Your task to perform on an android device: Set the phone to "Do not disturb". Image 0: 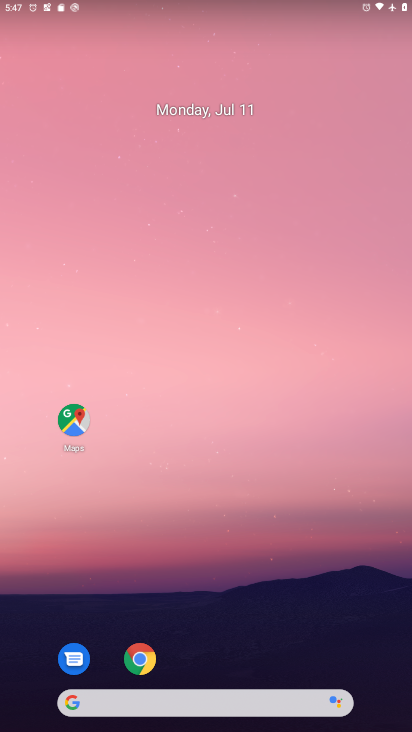
Step 0: drag from (273, 659) to (295, 69)
Your task to perform on an android device: Set the phone to "Do not disturb". Image 1: 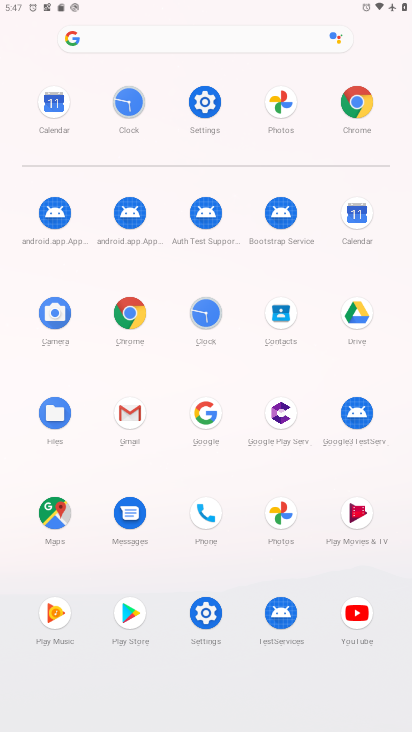
Step 1: click (205, 614)
Your task to perform on an android device: Set the phone to "Do not disturb". Image 2: 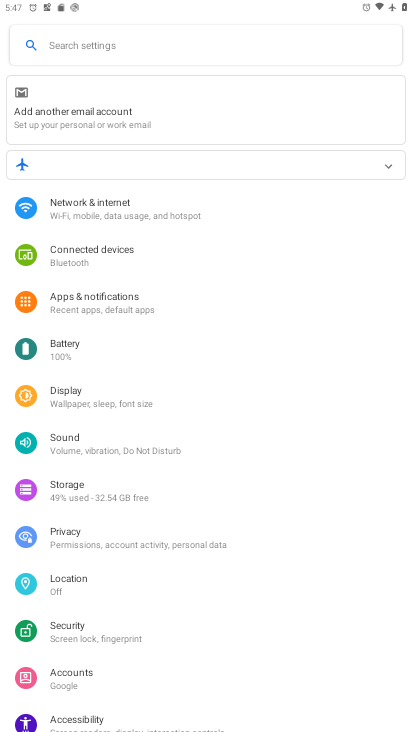
Step 2: click (89, 451)
Your task to perform on an android device: Set the phone to "Do not disturb". Image 3: 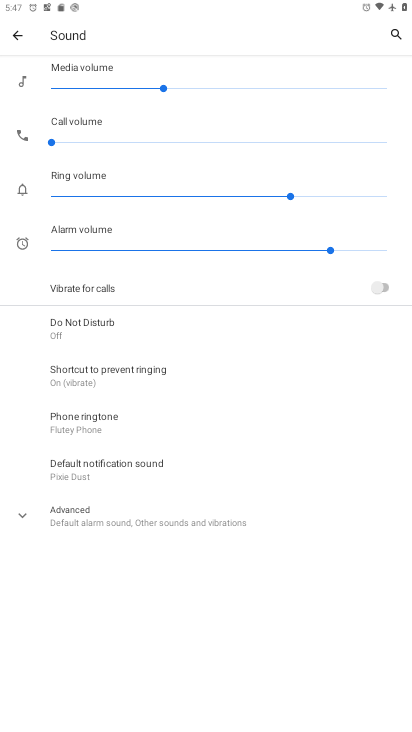
Step 3: click (60, 504)
Your task to perform on an android device: Set the phone to "Do not disturb". Image 4: 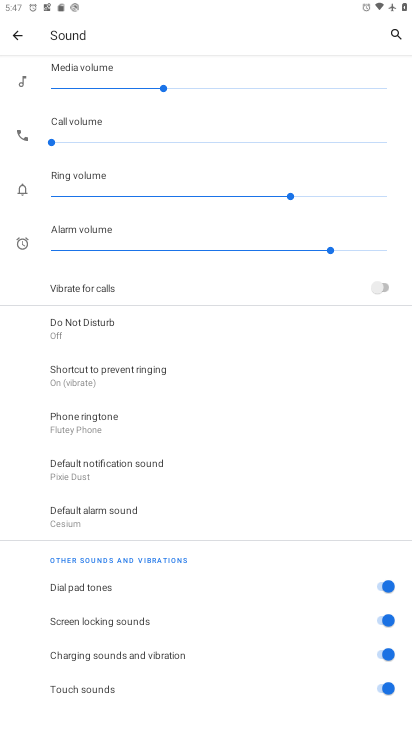
Step 4: click (62, 329)
Your task to perform on an android device: Set the phone to "Do not disturb". Image 5: 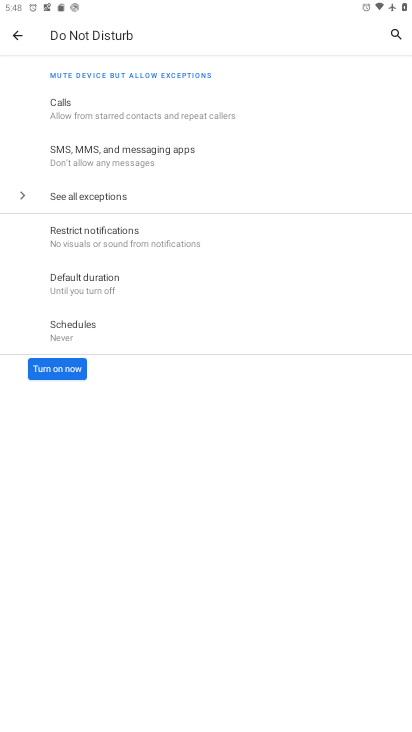
Step 5: click (54, 367)
Your task to perform on an android device: Set the phone to "Do not disturb". Image 6: 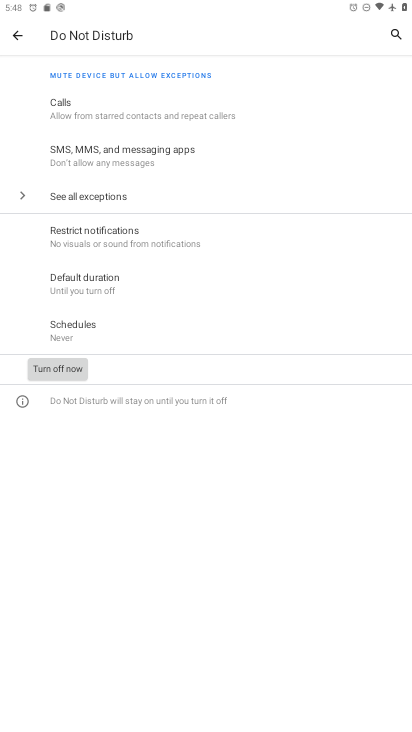
Step 6: task complete